Your task to perform on an android device: see creations saved in the google photos Image 0: 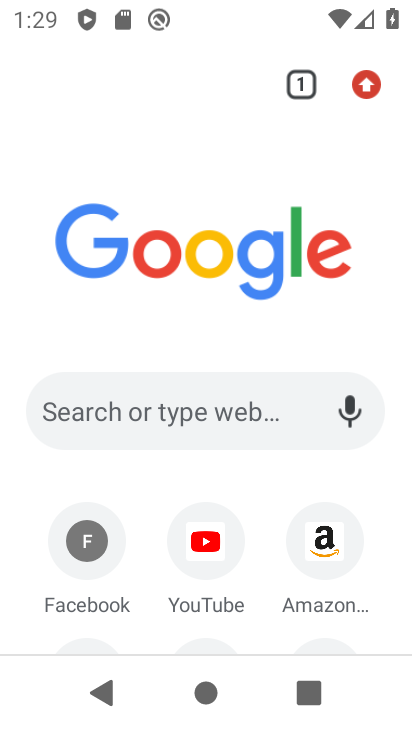
Step 0: press home button
Your task to perform on an android device: see creations saved in the google photos Image 1: 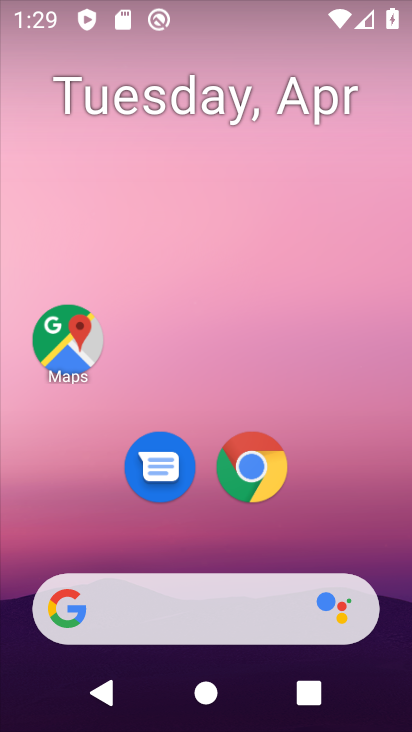
Step 1: drag from (362, 526) to (342, 128)
Your task to perform on an android device: see creations saved in the google photos Image 2: 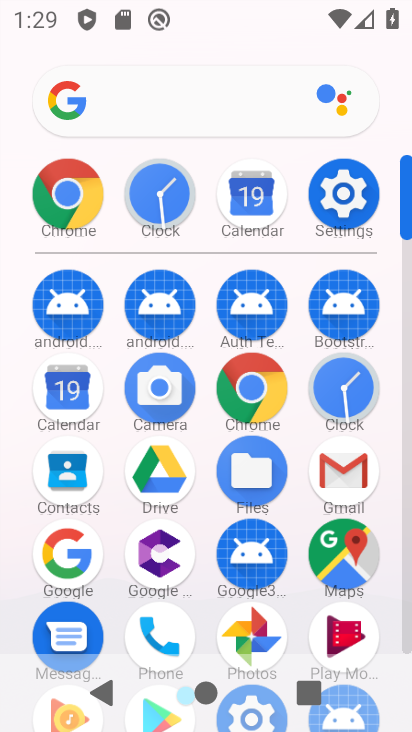
Step 2: drag from (394, 528) to (411, 195)
Your task to perform on an android device: see creations saved in the google photos Image 3: 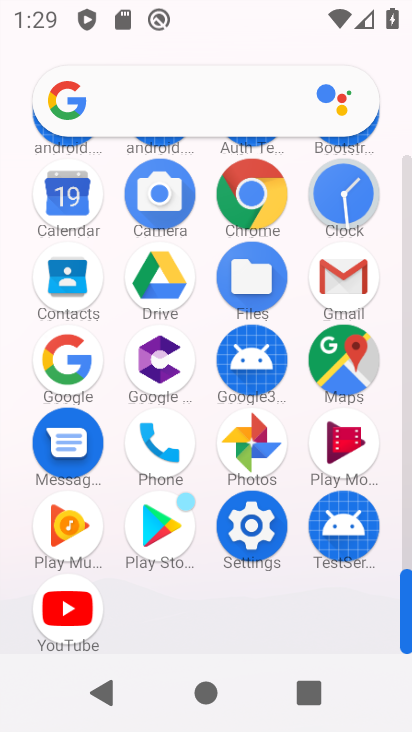
Step 3: click (247, 446)
Your task to perform on an android device: see creations saved in the google photos Image 4: 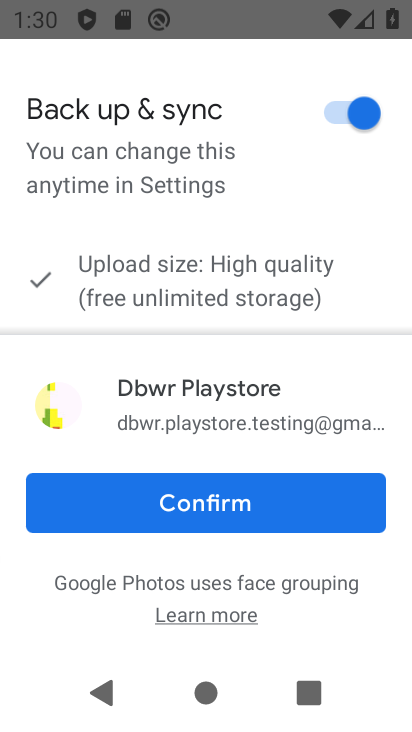
Step 4: click (243, 500)
Your task to perform on an android device: see creations saved in the google photos Image 5: 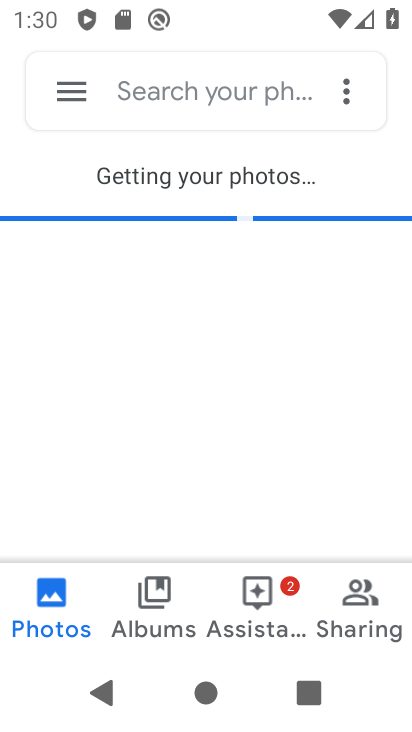
Step 5: click (222, 97)
Your task to perform on an android device: see creations saved in the google photos Image 6: 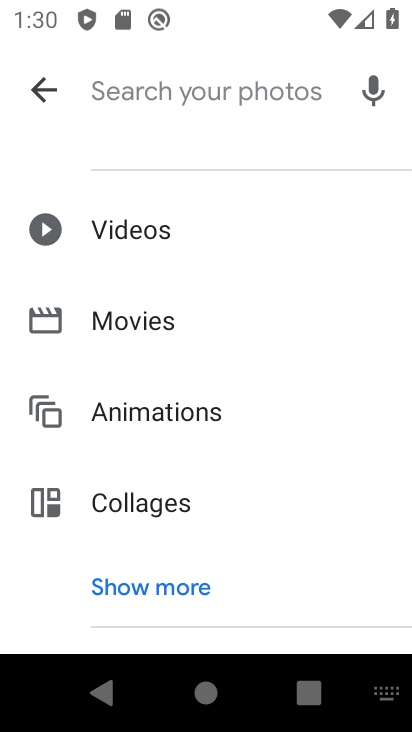
Step 6: click (209, 586)
Your task to perform on an android device: see creations saved in the google photos Image 7: 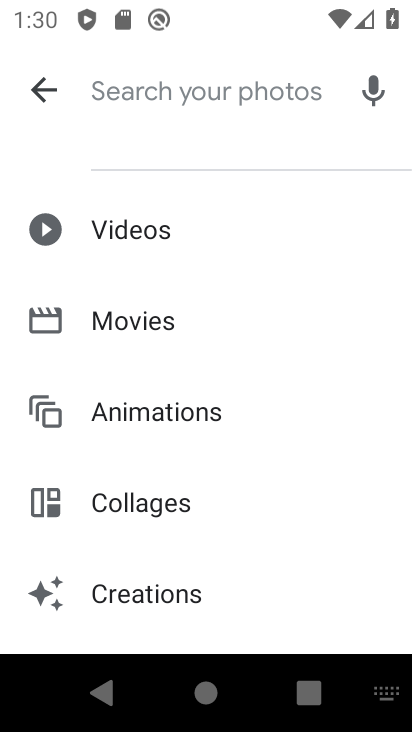
Step 7: drag from (260, 561) to (262, 235)
Your task to perform on an android device: see creations saved in the google photos Image 8: 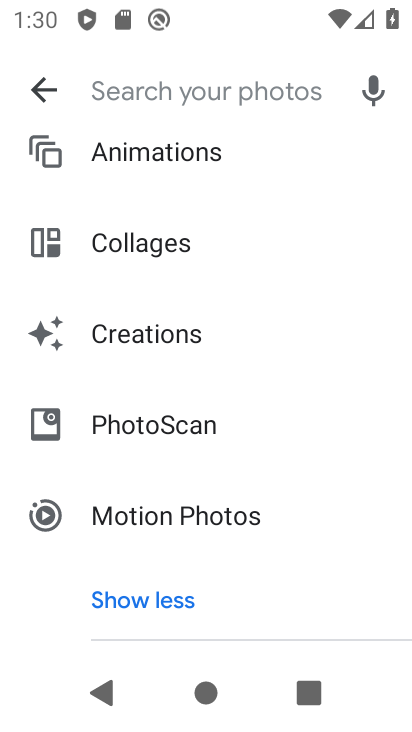
Step 8: click (167, 342)
Your task to perform on an android device: see creations saved in the google photos Image 9: 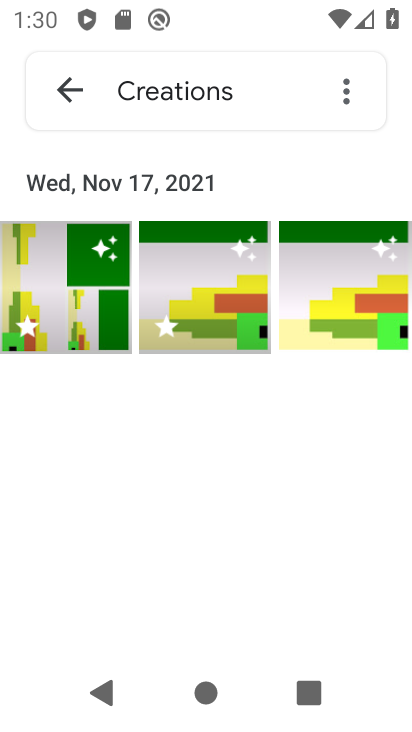
Step 9: task complete